Your task to perform on an android device: add a contact in the contacts app Image 0: 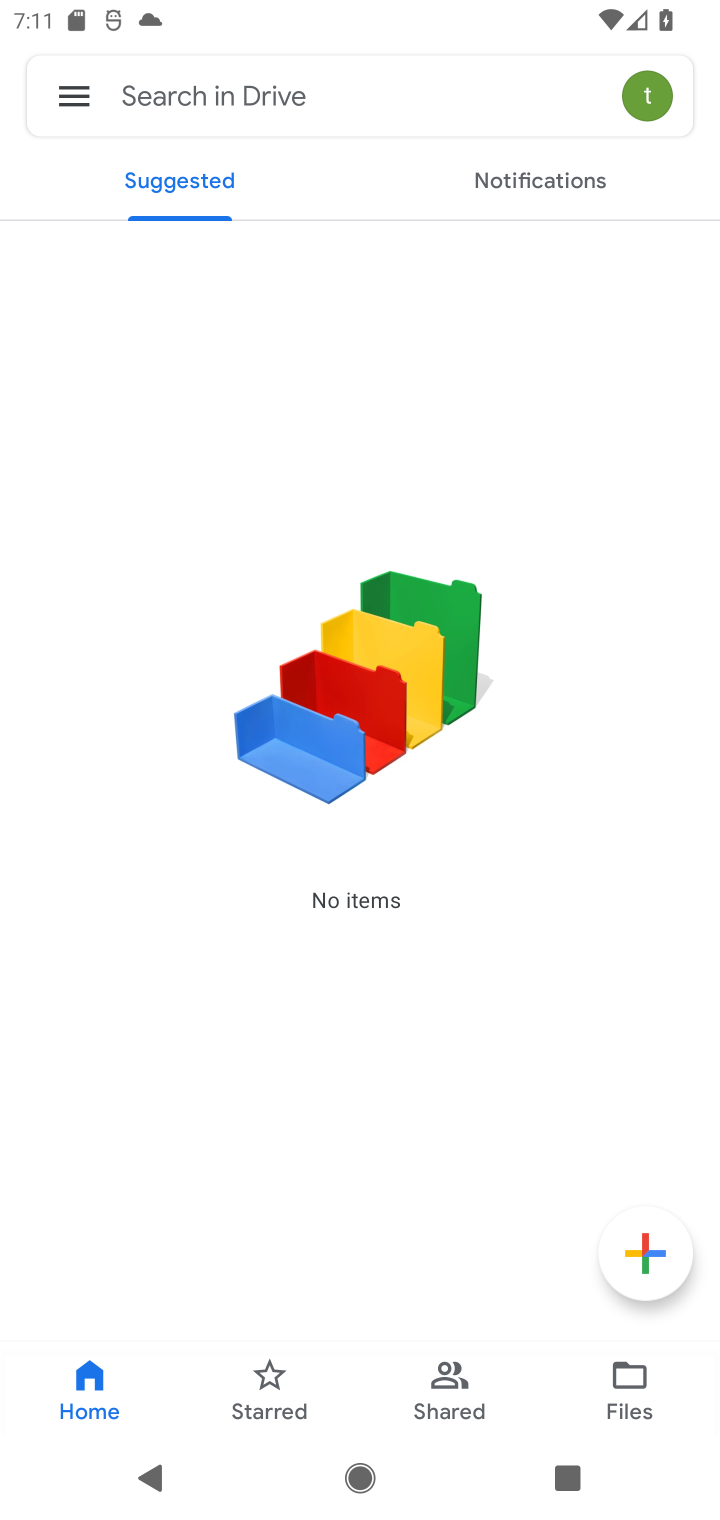
Step 0: press home button
Your task to perform on an android device: add a contact in the contacts app Image 1: 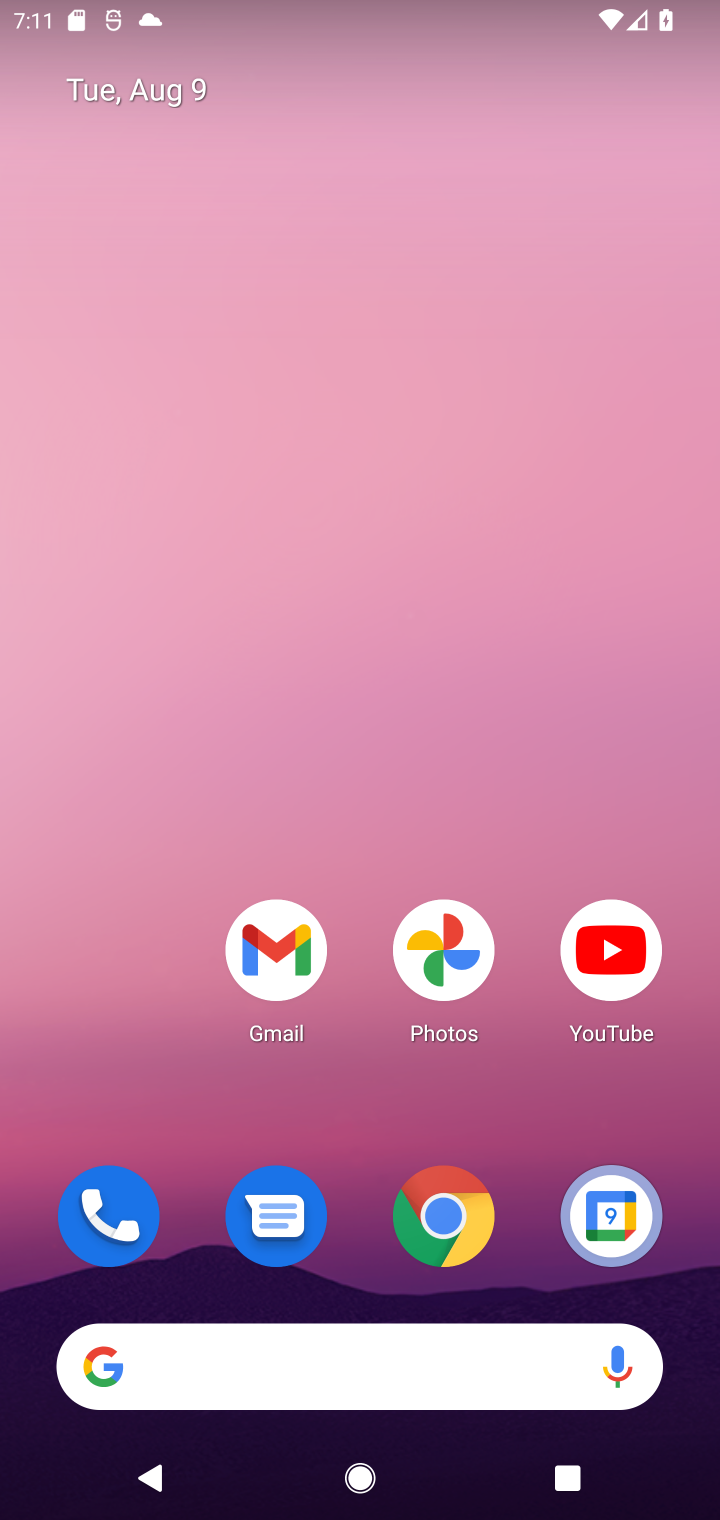
Step 1: drag from (197, 700) to (226, 132)
Your task to perform on an android device: add a contact in the contacts app Image 2: 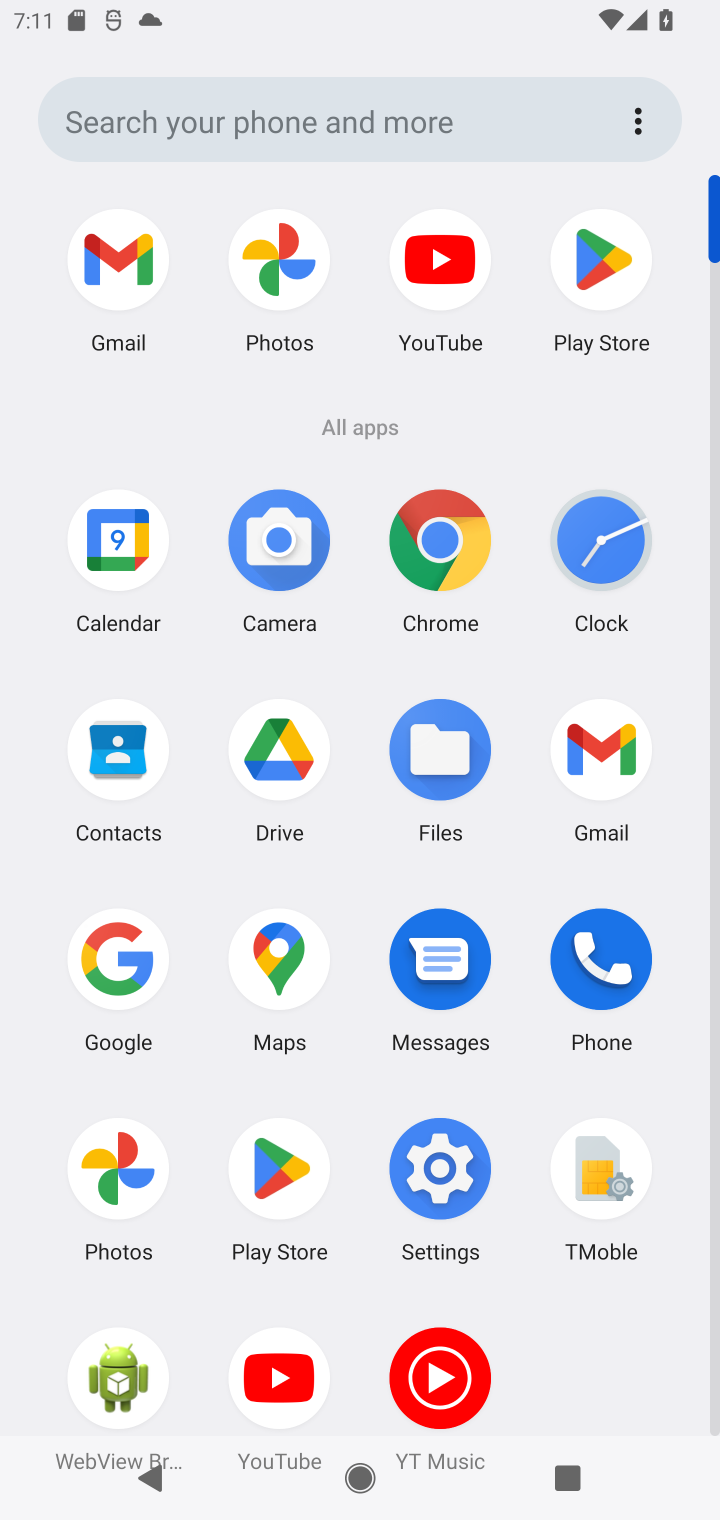
Step 2: click (100, 748)
Your task to perform on an android device: add a contact in the contacts app Image 3: 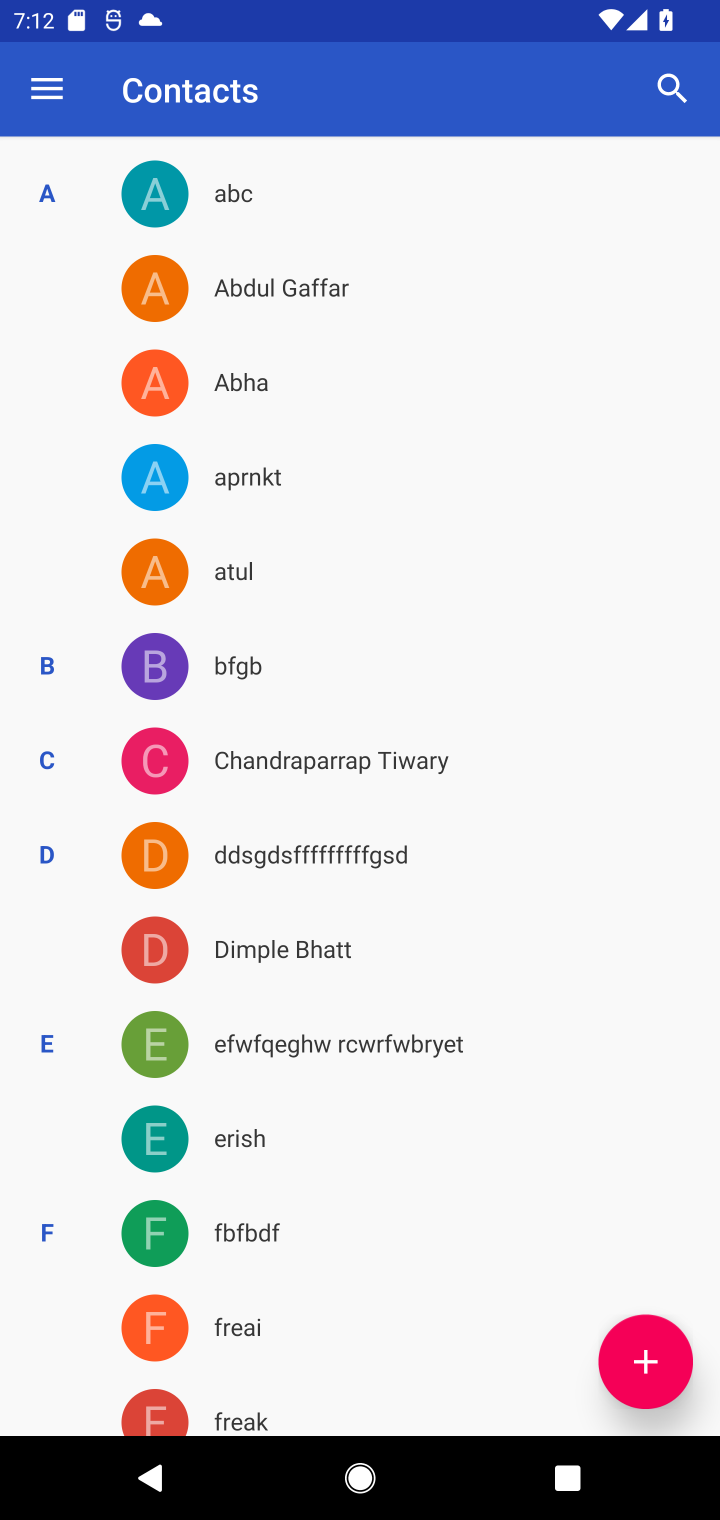
Step 3: click (640, 1354)
Your task to perform on an android device: add a contact in the contacts app Image 4: 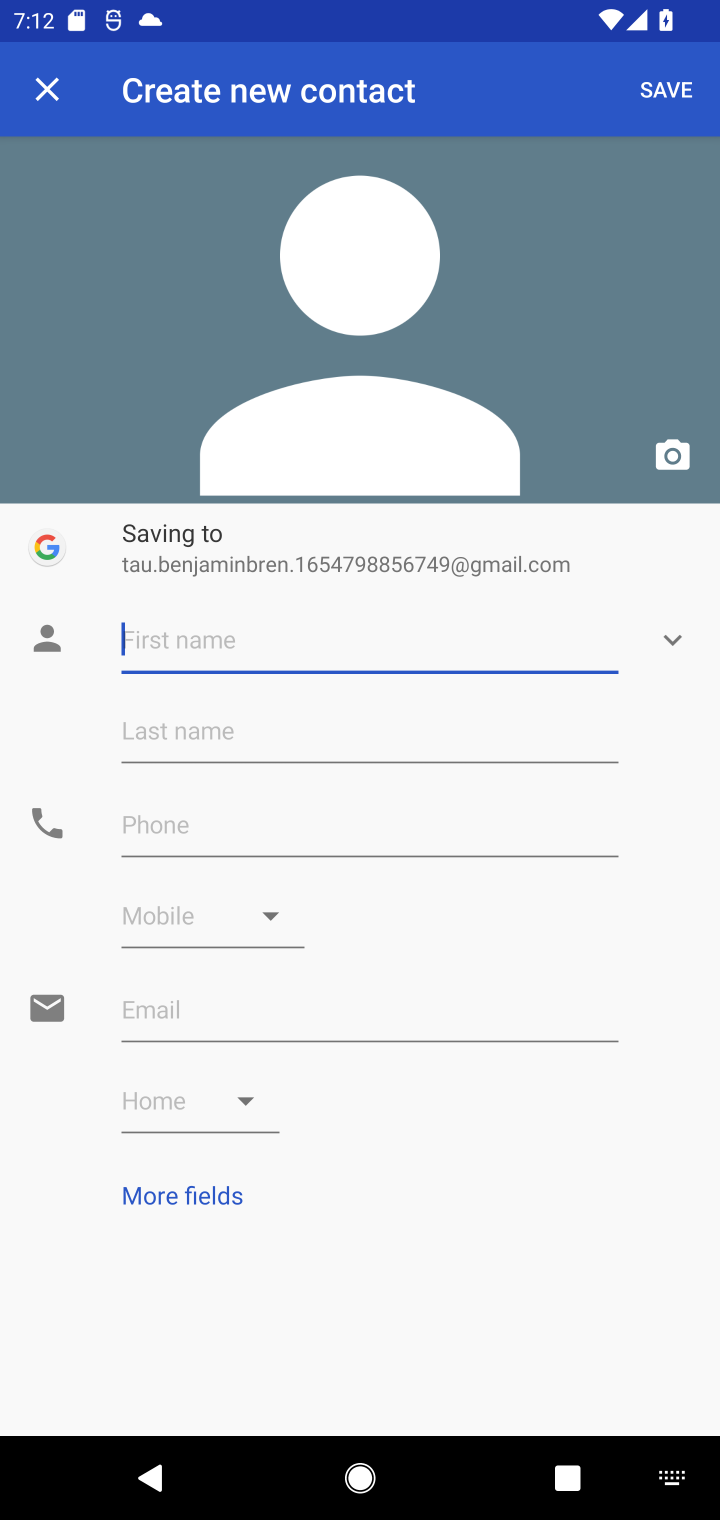
Step 4: type "ffff"
Your task to perform on an android device: add a contact in the contacts app Image 5: 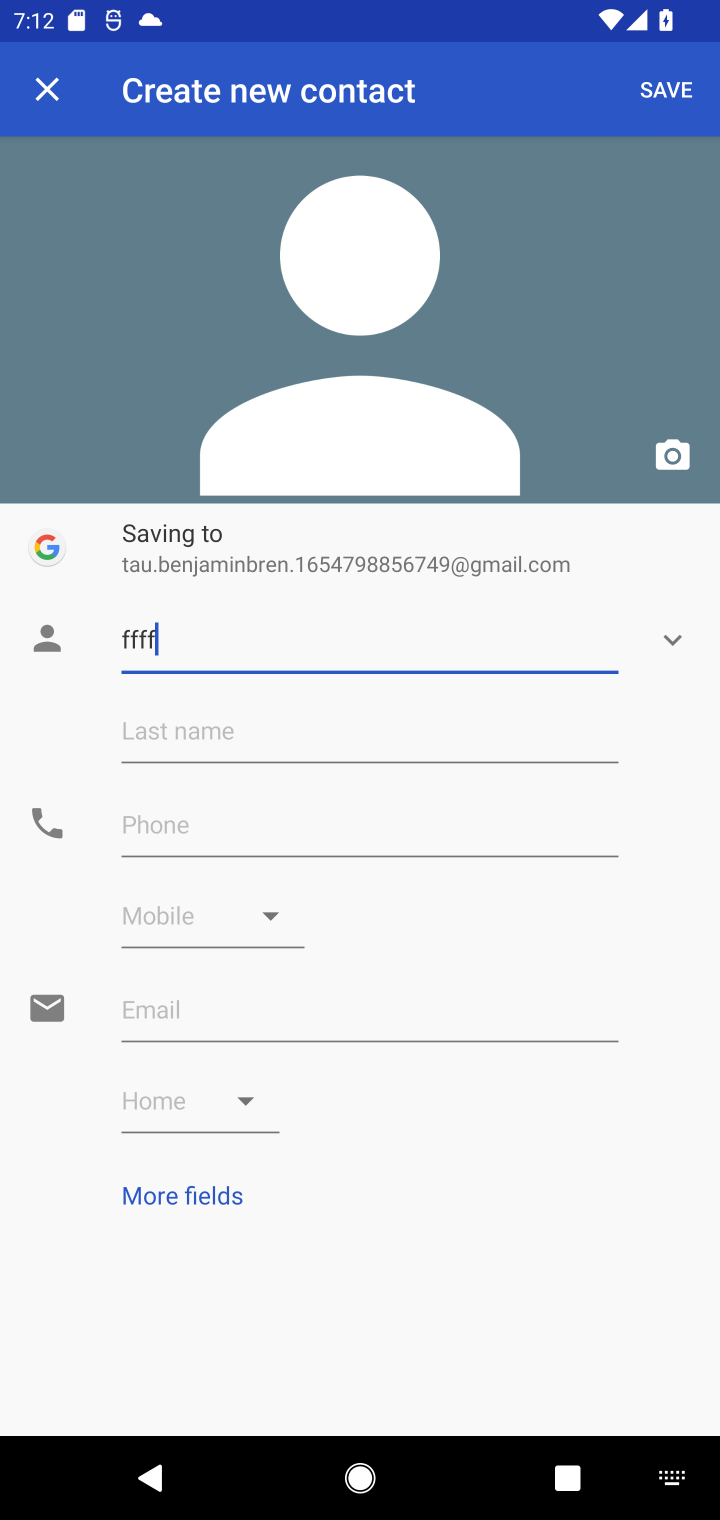
Step 5: click (227, 792)
Your task to perform on an android device: add a contact in the contacts app Image 6: 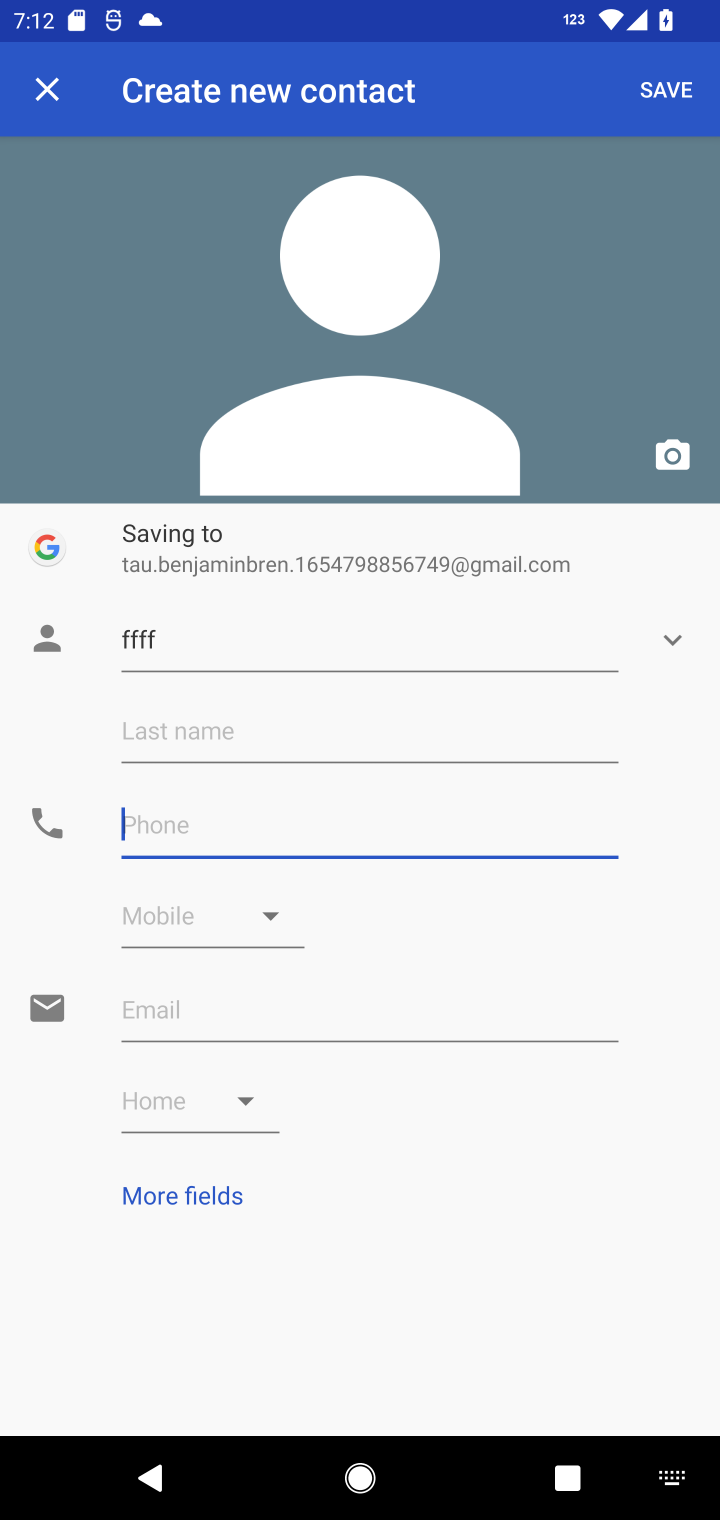
Step 6: type "111"
Your task to perform on an android device: add a contact in the contacts app Image 7: 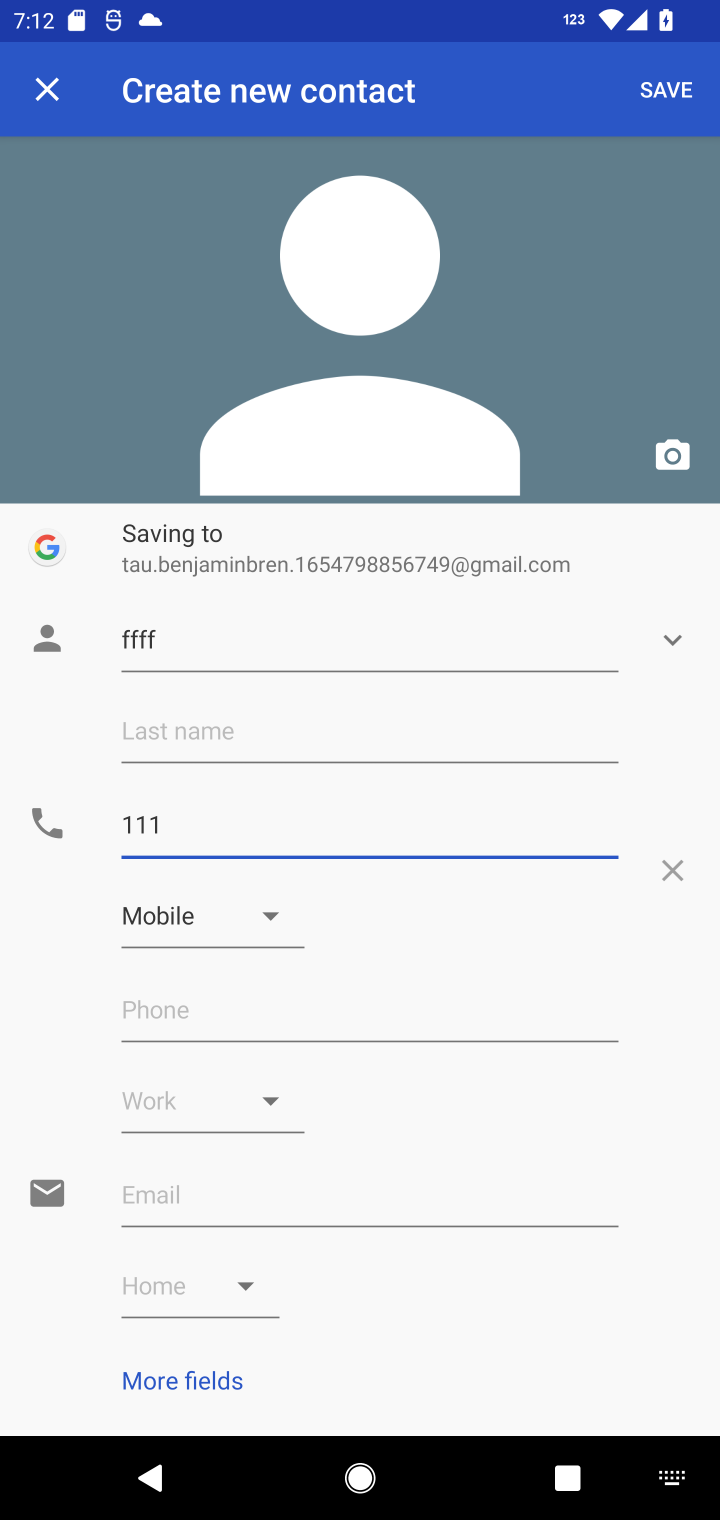
Step 7: click (668, 74)
Your task to perform on an android device: add a contact in the contacts app Image 8: 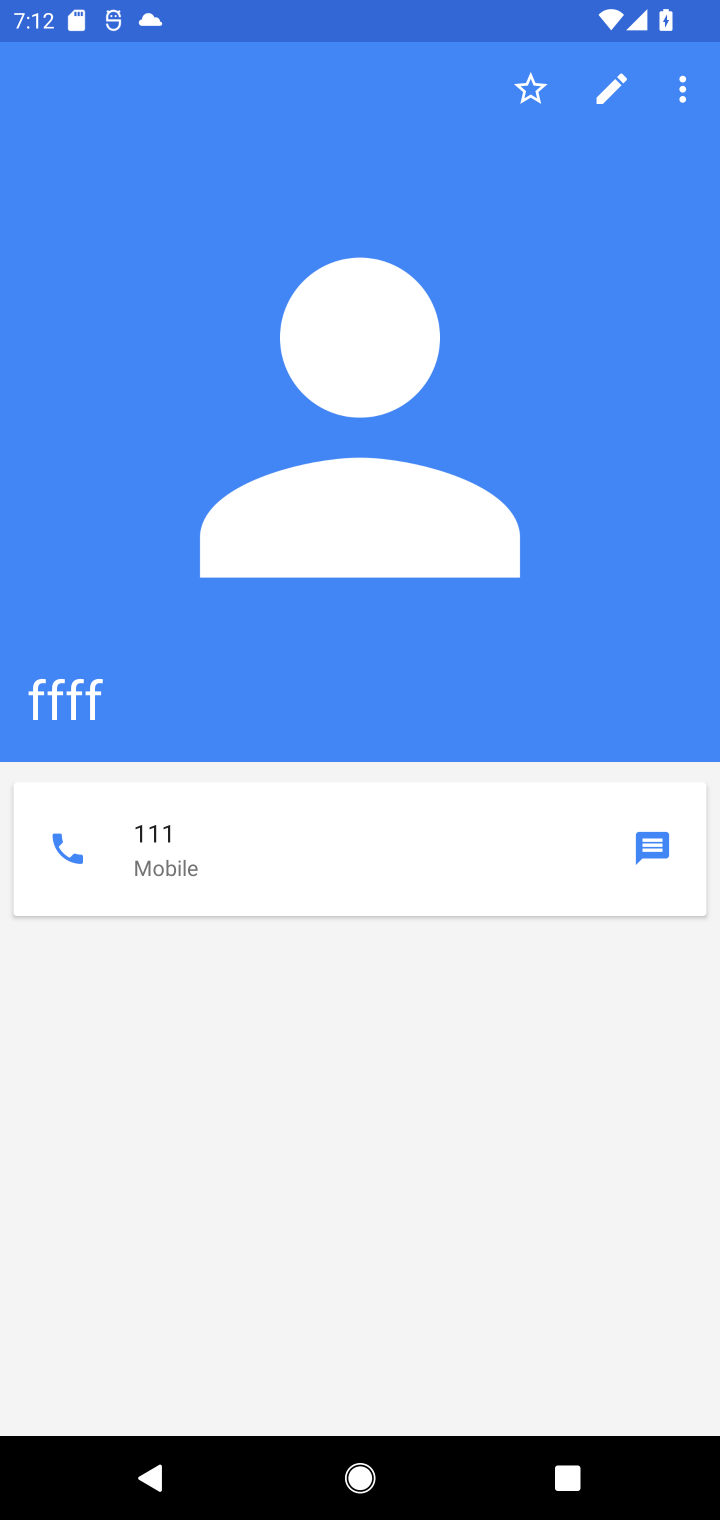
Step 8: task complete